Your task to perform on an android device: read, delete, or share a saved page in the chrome app Image 0: 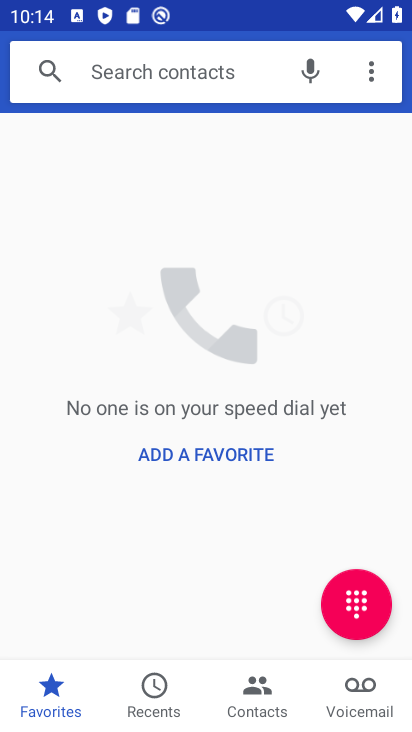
Step 0: task impossible